Your task to perform on an android device: Open the stopwatch Image 0: 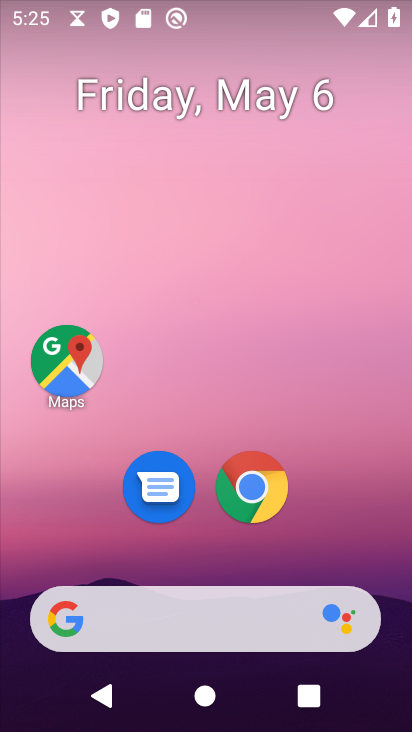
Step 0: drag from (337, 524) to (300, 4)
Your task to perform on an android device: Open the stopwatch Image 1: 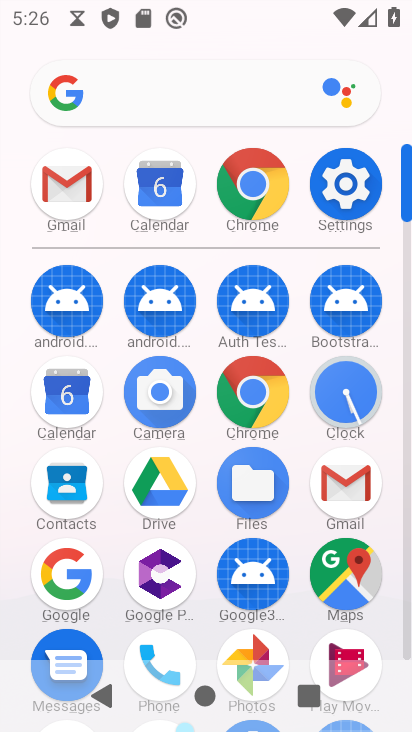
Step 1: click (348, 393)
Your task to perform on an android device: Open the stopwatch Image 2: 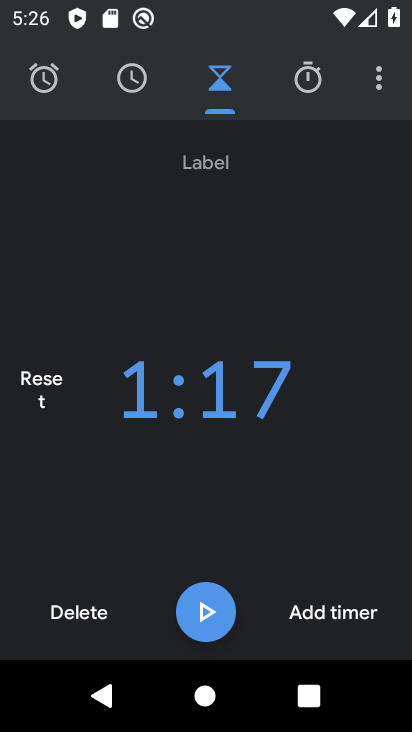
Step 2: click (310, 82)
Your task to perform on an android device: Open the stopwatch Image 3: 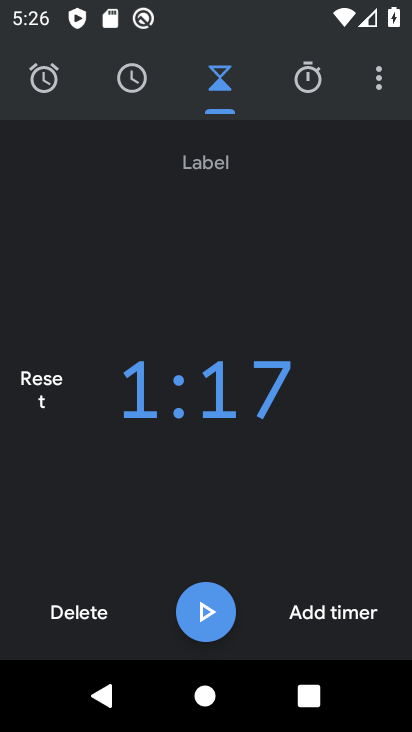
Step 3: task complete